Your task to perform on an android device: turn off notifications settings in the gmail app Image 0: 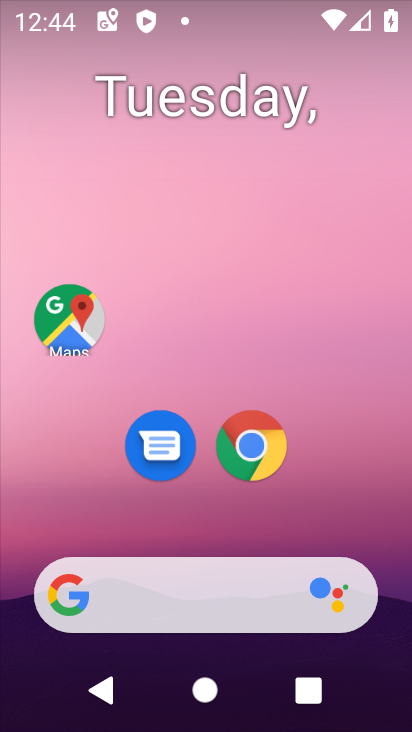
Step 0: drag from (326, 547) to (406, 109)
Your task to perform on an android device: turn off notifications settings in the gmail app Image 1: 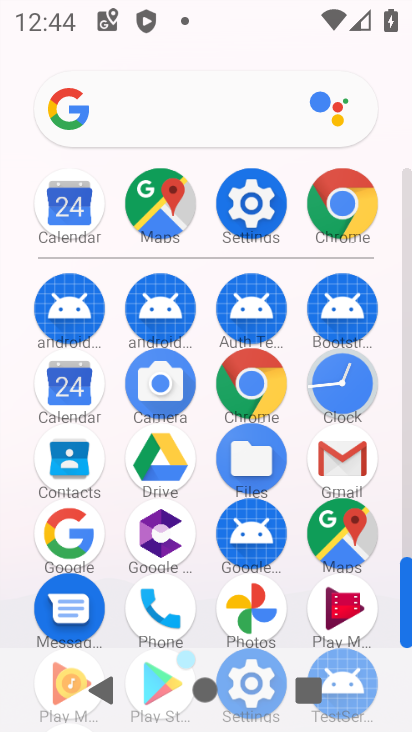
Step 1: click (367, 456)
Your task to perform on an android device: turn off notifications settings in the gmail app Image 2: 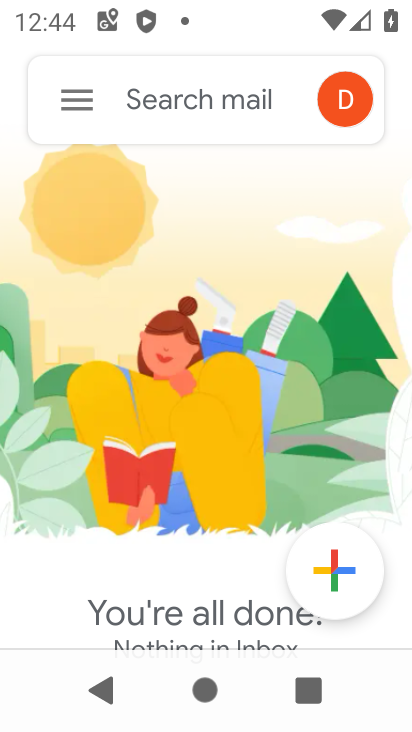
Step 2: click (71, 104)
Your task to perform on an android device: turn off notifications settings in the gmail app Image 3: 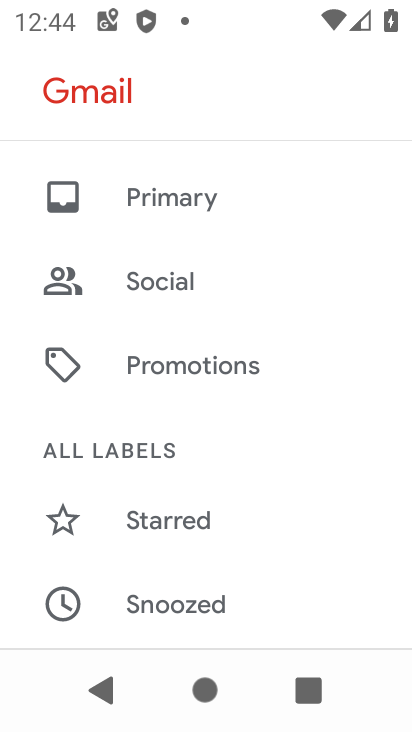
Step 3: drag from (166, 636) to (248, 68)
Your task to perform on an android device: turn off notifications settings in the gmail app Image 4: 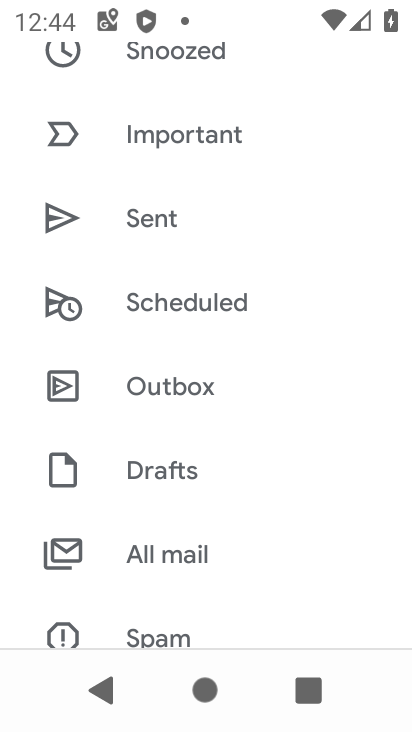
Step 4: drag from (186, 581) to (298, 109)
Your task to perform on an android device: turn off notifications settings in the gmail app Image 5: 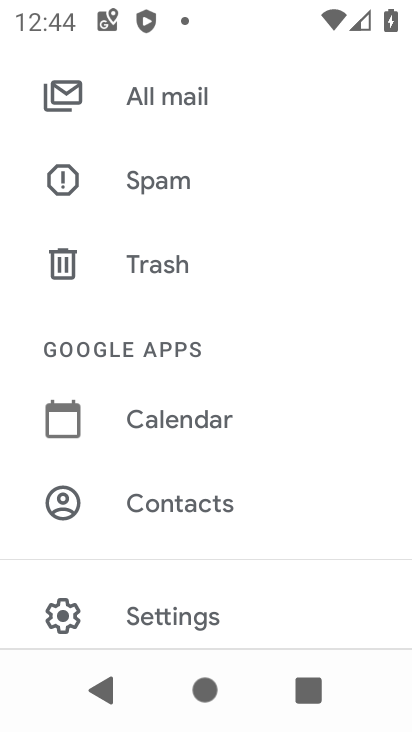
Step 5: click (154, 633)
Your task to perform on an android device: turn off notifications settings in the gmail app Image 6: 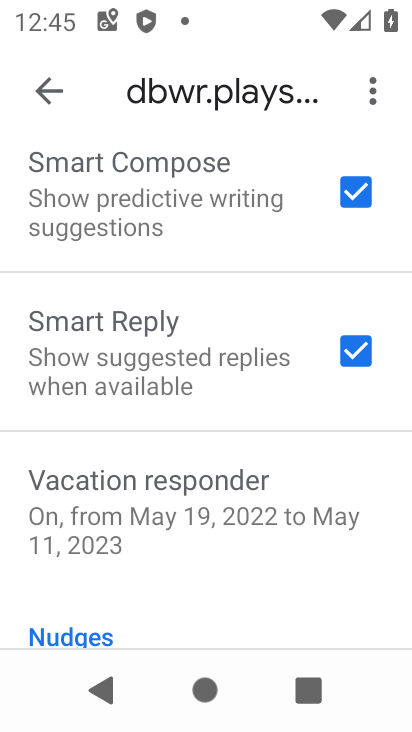
Step 6: drag from (222, 507) to (265, 139)
Your task to perform on an android device: turn off notifications settings in the gmail app Image 7: 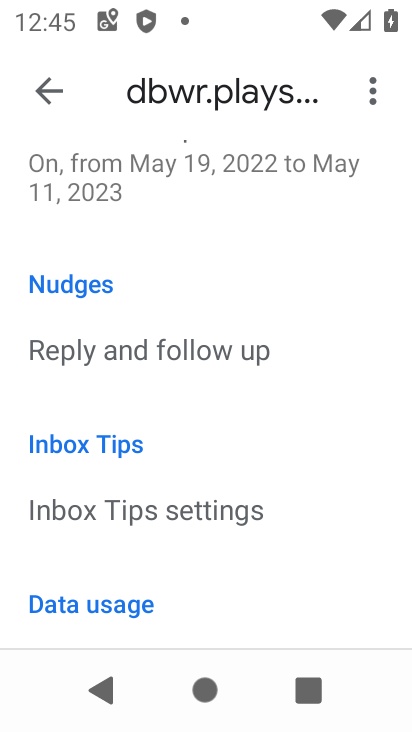
Step 7: drag from (150, 562) to (263, 74)
Your task to perform on an android device: turn off notifications settings in the gmail app Image 8: 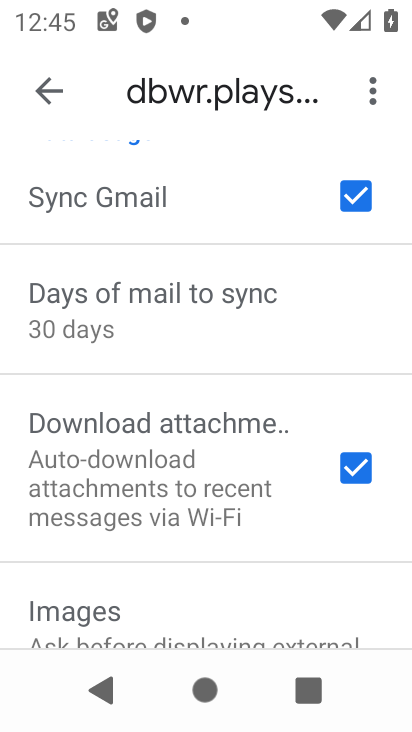
Step 8: drag from (149, 521) to (212, 155)
Your task to perform on an android device: turn off notifications settings in the gmail app Image 9: 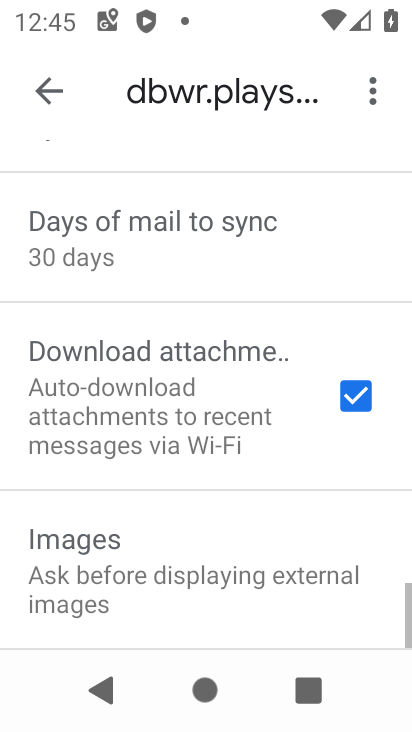
Step 9: drag from (192, 389) to (178, 637)
Your task to perform on an android device: turn off notifications settings in the gmail app Image 10: 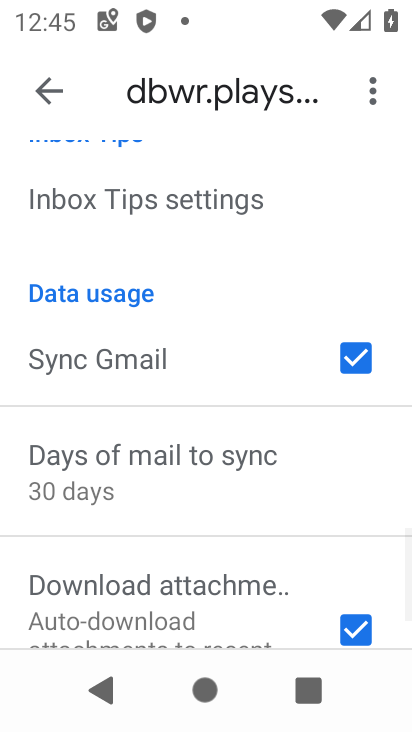
Step 10: drag from (193, 199) to (173, 647)
Your task to perform on an android device: turn off notifications settings in the gmail app Image 11: 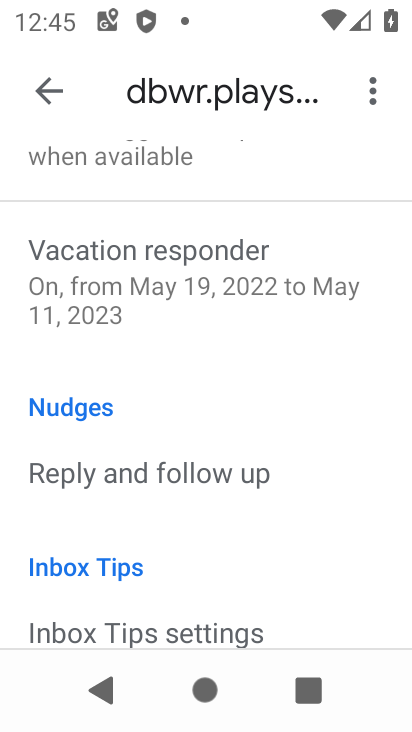
Step 11: drag from (173, 326) to (165, 729)
Your task to perform on an android device: turn off notifications settings in the gmail app Image 12: 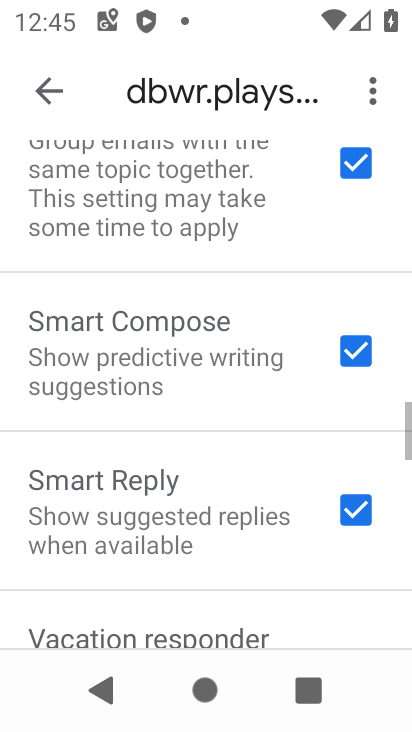
Step 12: drag from (141, 269) to (123, 730)
Your task to perform on an android device: turn off notifications settings in the gmail app Image 13: 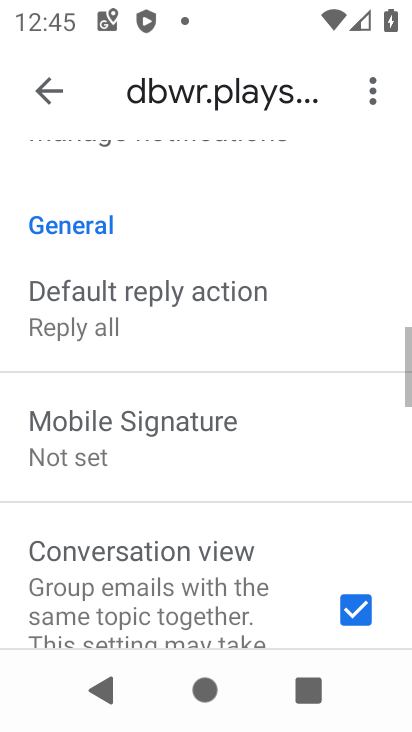
Step 13: drag from (193, 284) to (172, 731)
Your task to perform on an android device: turn off notifications settings in the gmail app Image 14: 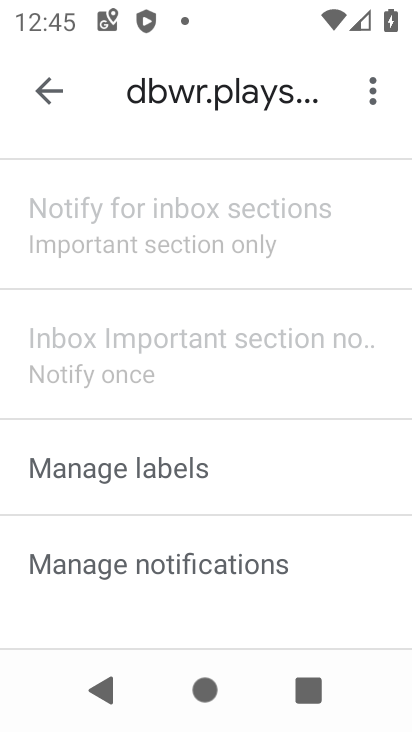
Step 14: drag from (228, 301) to (182, 727)
Your task to perform on an android device: turn off notifications settings in the gmail app Image 15: 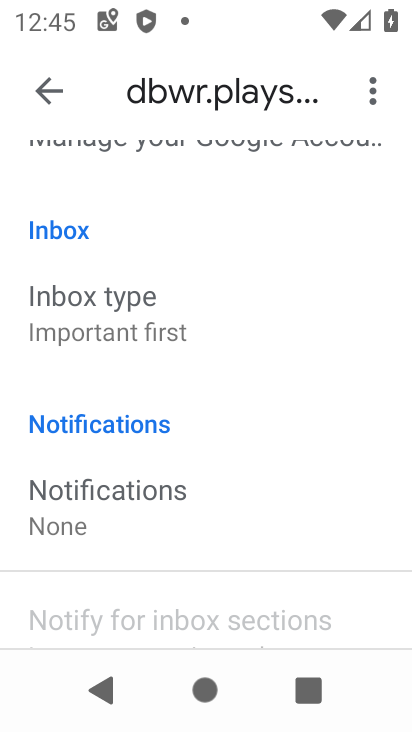
Step 15: click (105, 515)
Your task to perform on an android device: turn off notifications settings in the gmail app Image 16: 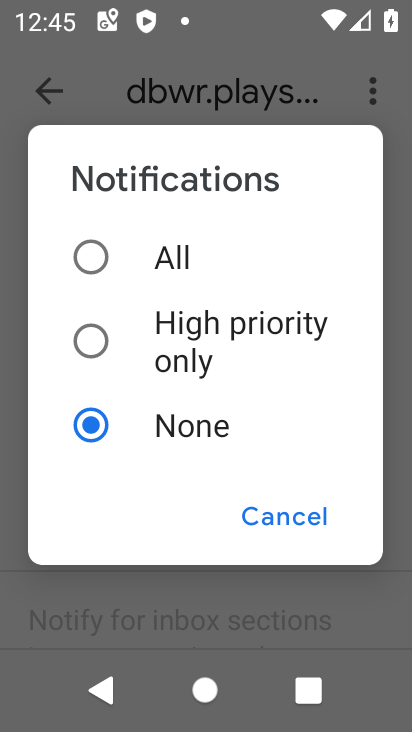
Step 16: task complete